Your task to perform on an android device: Open Google Chrome and open the bookmarks view Image 0: 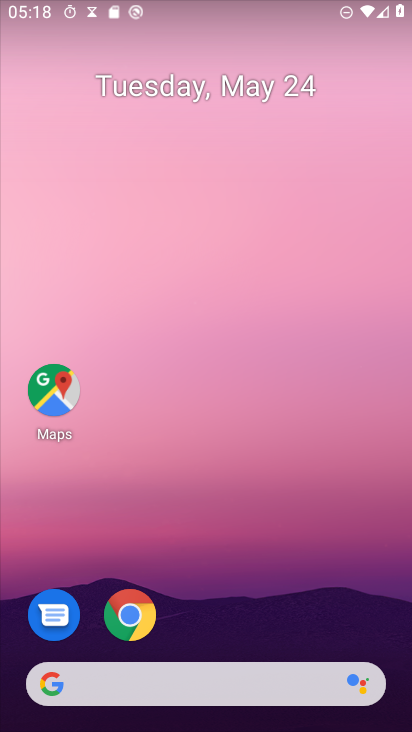
Step 0: click (128, 608)
Your task to perform on an android device: Open Google Chrome and open the bookmarks view Image 1: 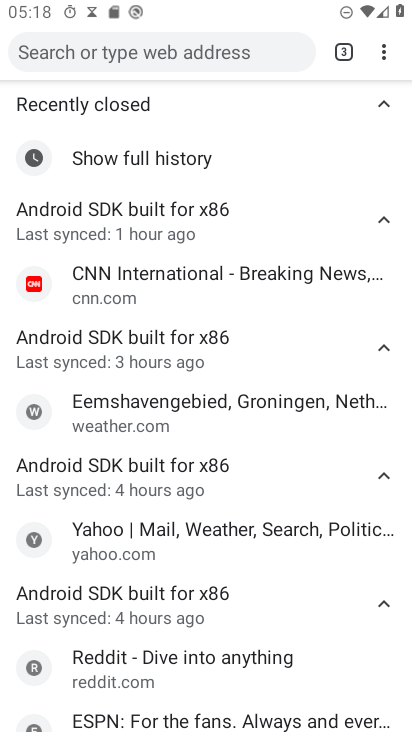
Step 1: task complete